Your task to perform on an android device: see creations saved in the google photos Image 0: 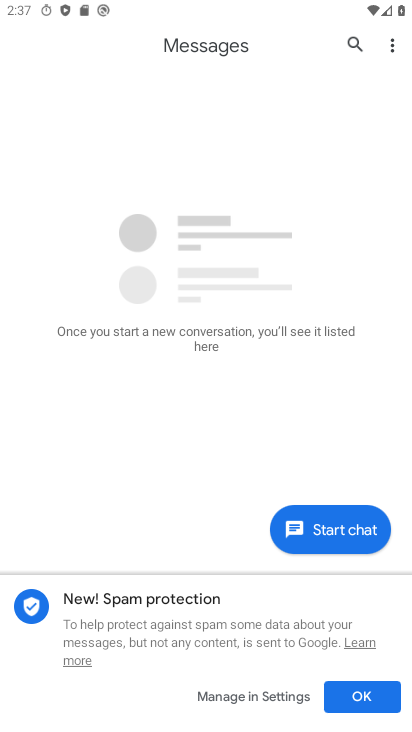
Step 0: press home button
Your task to perform on an android device: see creations saved in the google photos Image 1: 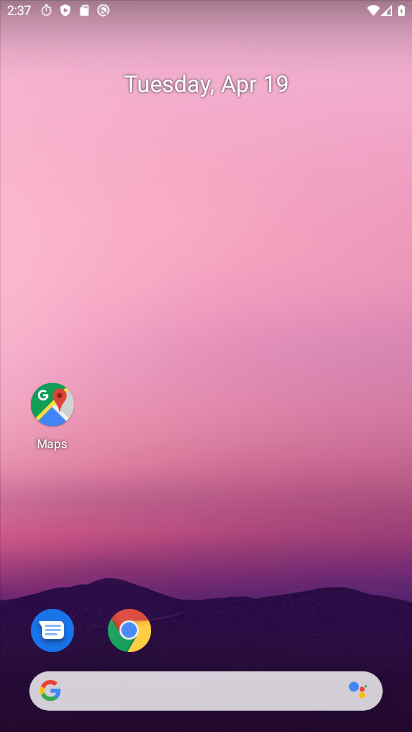
Step 1: drag from (272, 592) to (276, 120)
Your task to perform on an android device: see creations saved in the google photos Image 2: 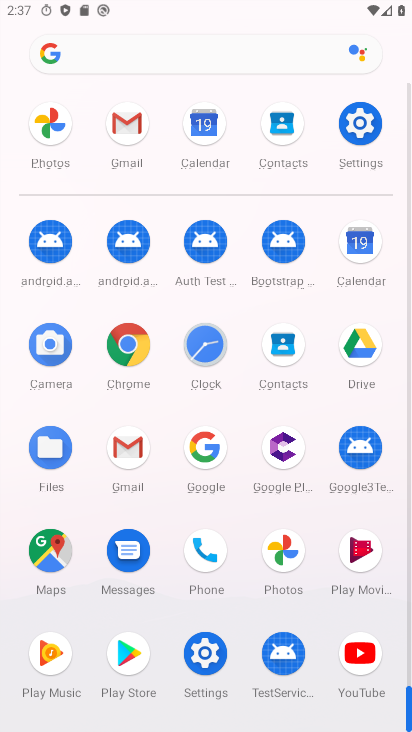
Step 2: click (285, 544)
Your task to perform on an android device: see creations saved in the google photos Image 3: 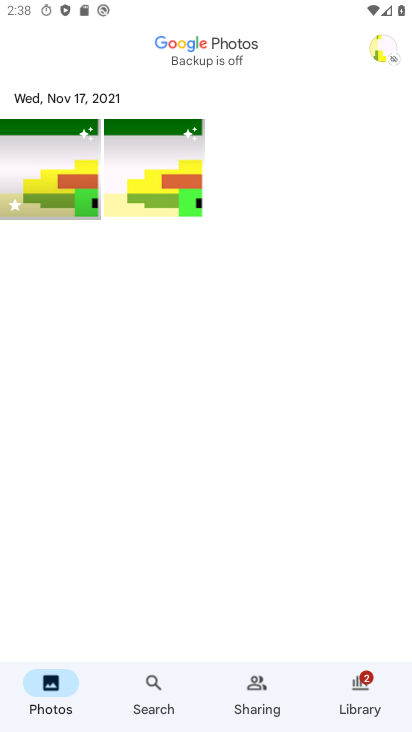
Step 3: click (154, 678)
Your task to perform on an android device: see creations saved in the google photos Image 4: 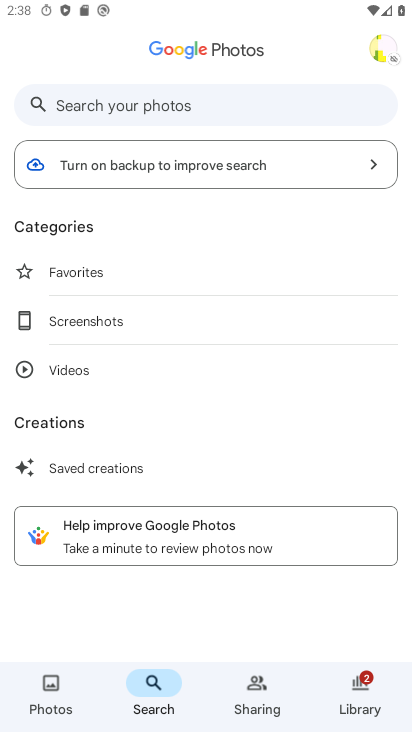
Step 4: click (112, 466)
Your task to perform on an android device: see creations saved in the google photos Image 5: 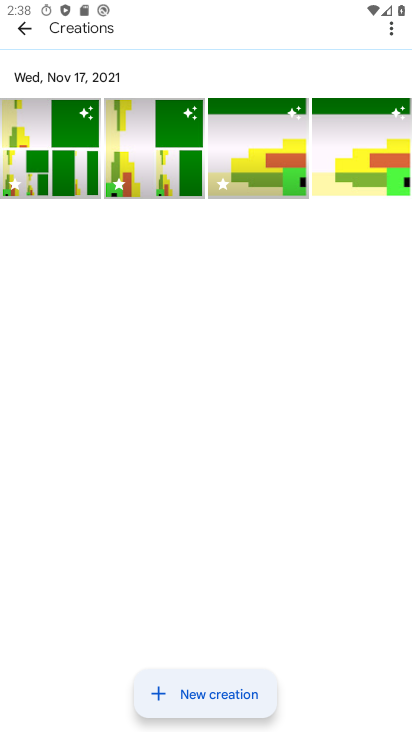
Step 5: task complete